Your task to perform on an android device: toggle sleep mode Image 0: 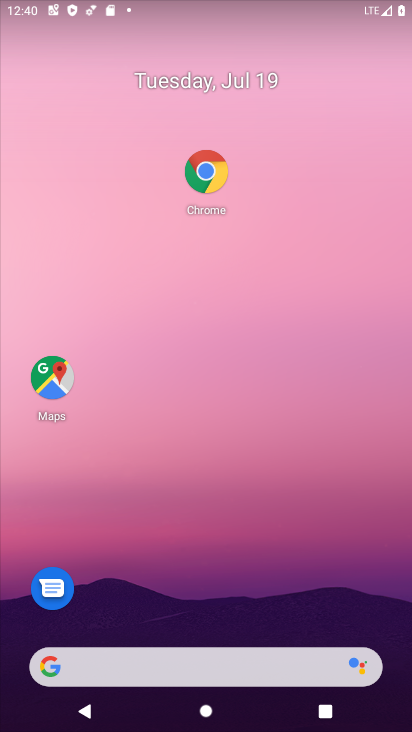
Step 0: drag from (155, 620) to (97, 245)
Your task to perform on an android device: toggle sleep mode Image 1: 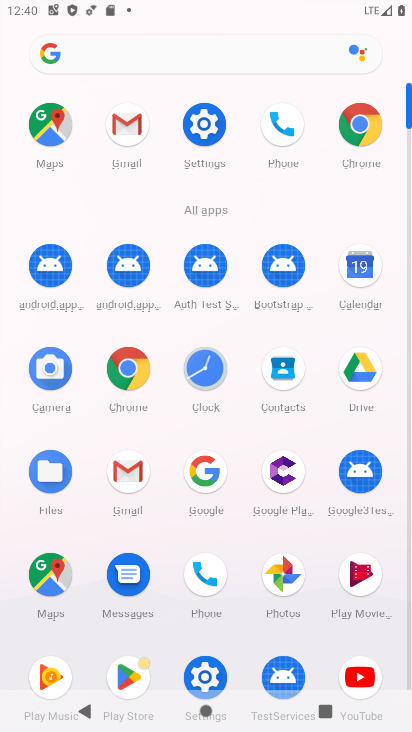
Step 1: click (208, 98)
Your task to perform on an android device: toggle sleep mode Image 2: 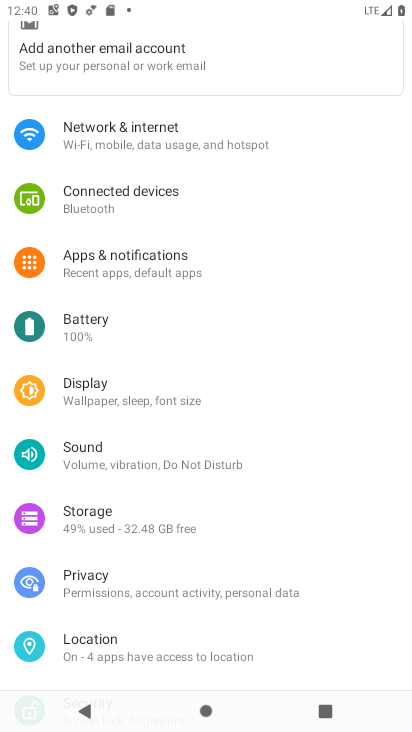
Step 2: task complete